Your task to perform on an android device: Show me popular games on the Play Store Image 0: 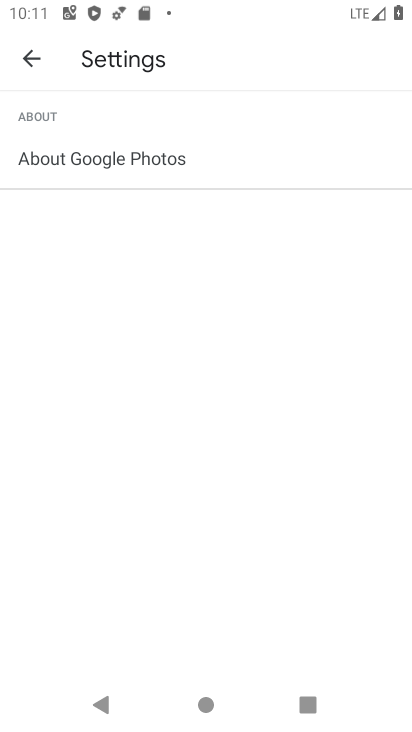
Step 0: drag from (322, 422) to (276, 700)
Your task to perform on an android device: Show me popular games on the Play Store Image 1: 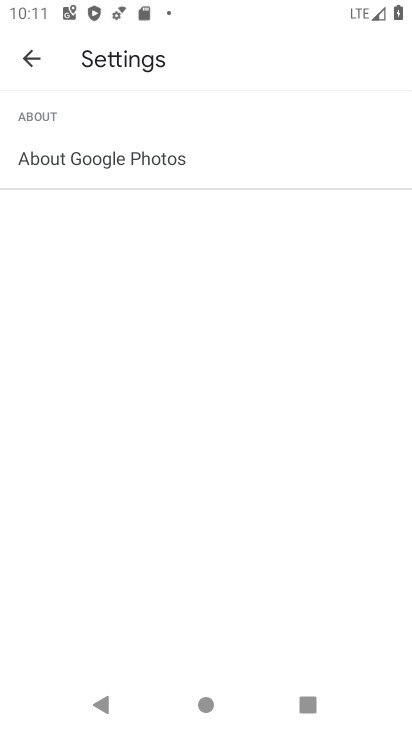
Step 1: press home button
Your task to perform on an android device: Show me popular games on the Play Store Image 2: 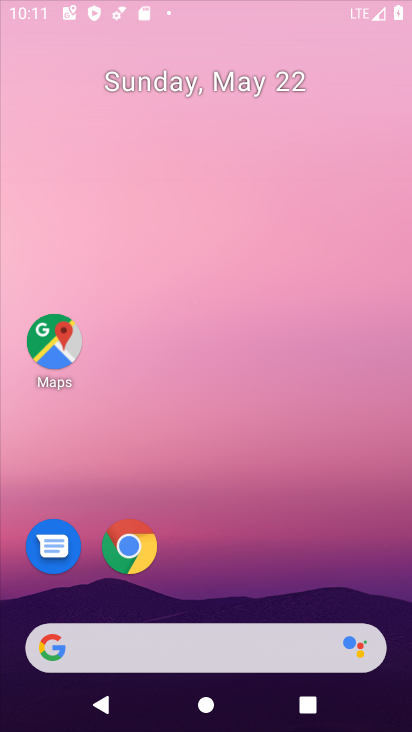
Step 2: drag from (181, 579) to (264, 37)
Your task to perform on an android device: Show me popular games on the Play Store Image 3: 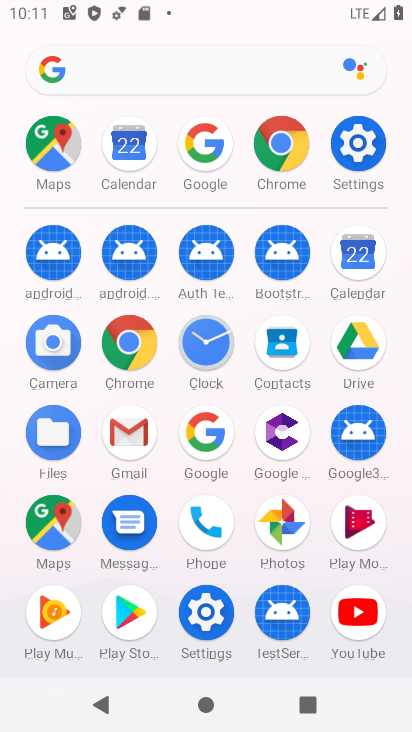
Step 3: click (105, 637)
Your task to perform on an android device: Show me popular games on the Play Store Image 4: 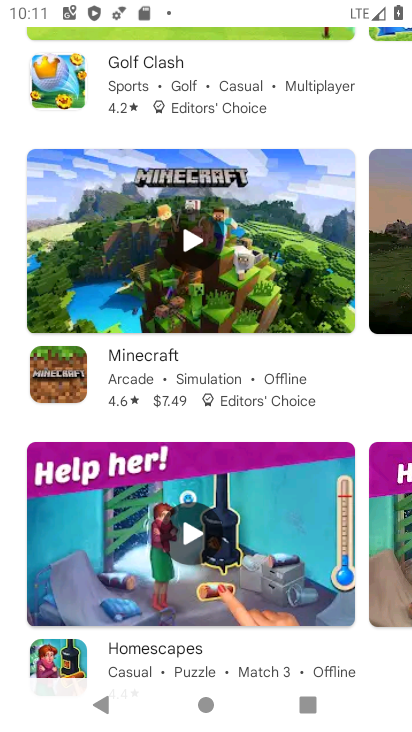
Step 4: task complete